Your task to perform on an android device: Open maps Image 0: 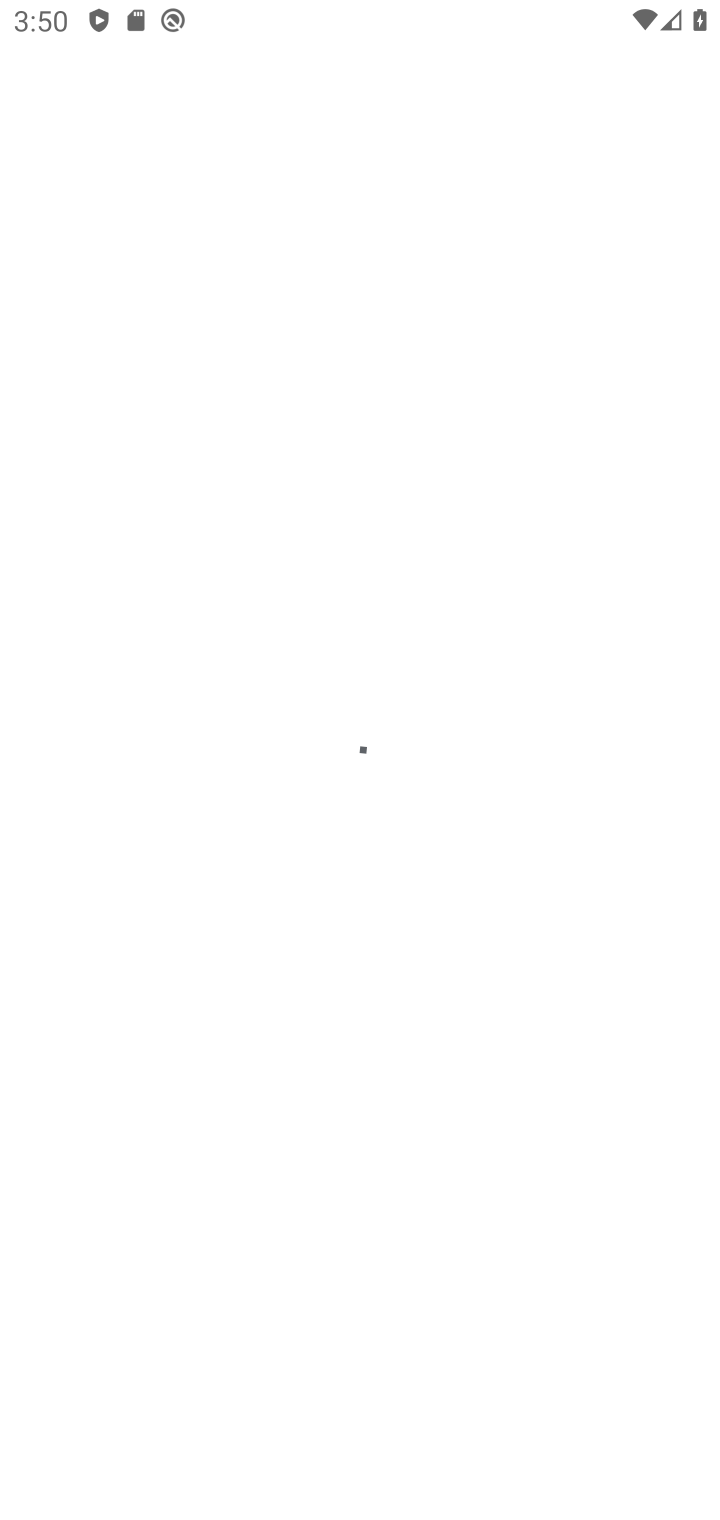
Step 0: press back button
Your task to perform on an android device: Open maps Image 1: 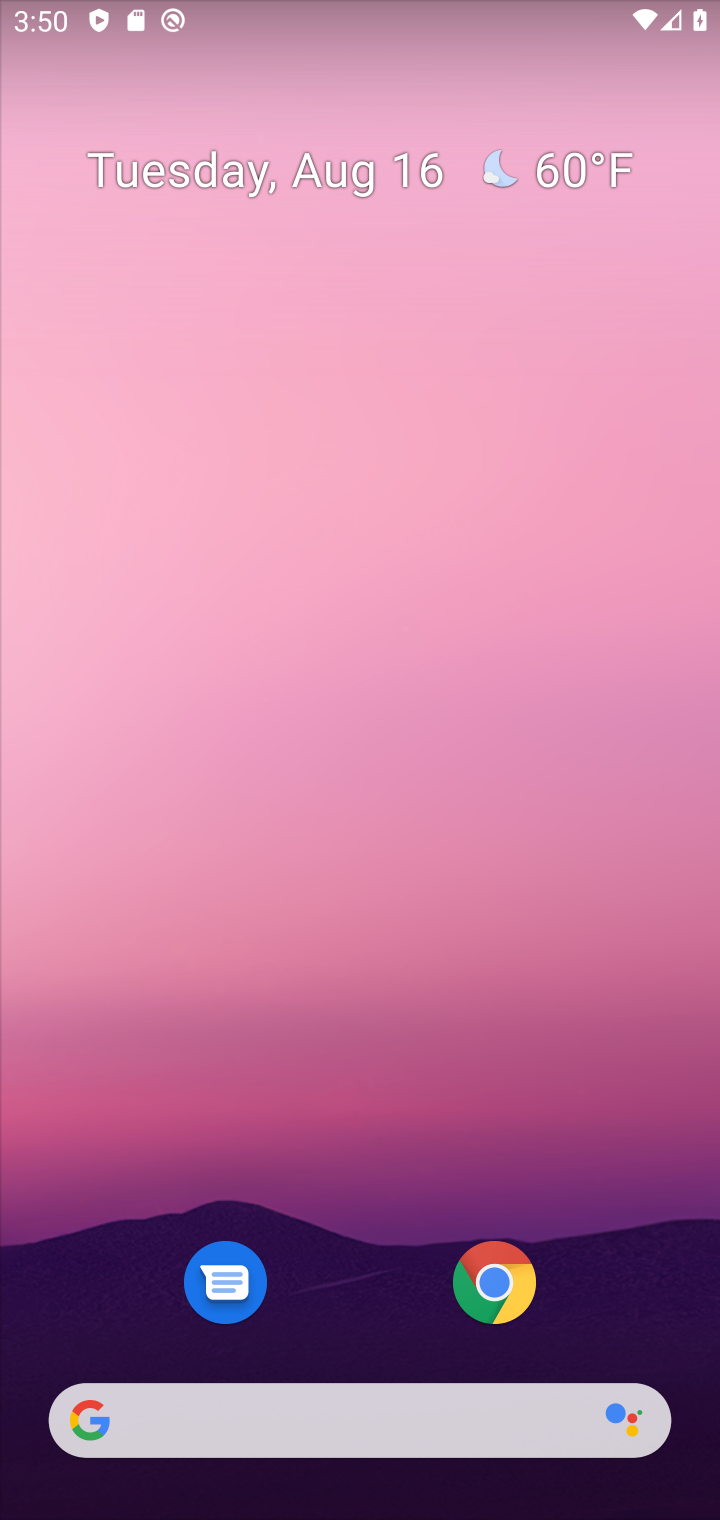
Step 1: drag from (294, 1335) to (553, 206)
Your task to perform on an android device: Open maps Image 2: 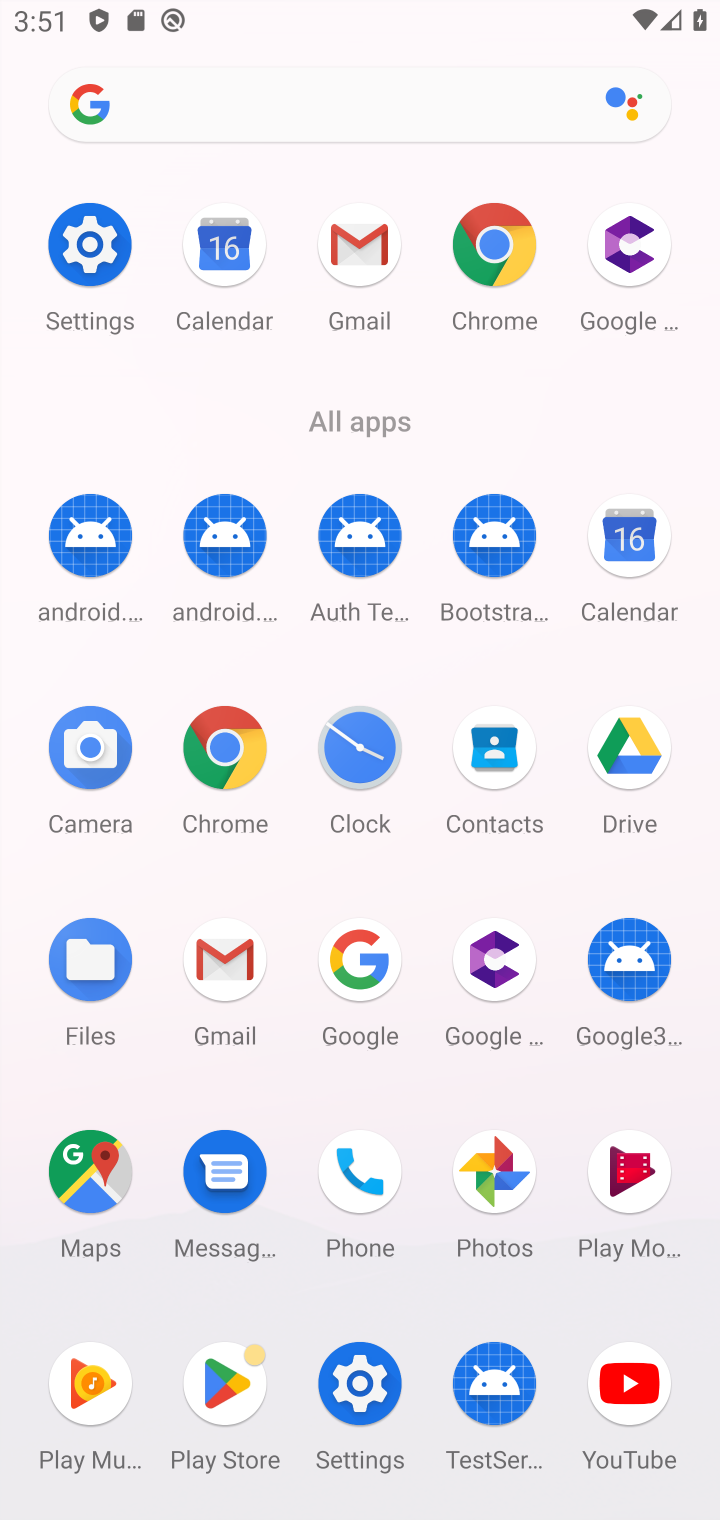
Step 2: click (85, 1157)
Your task to perform on an android device: Open maps Image 3: 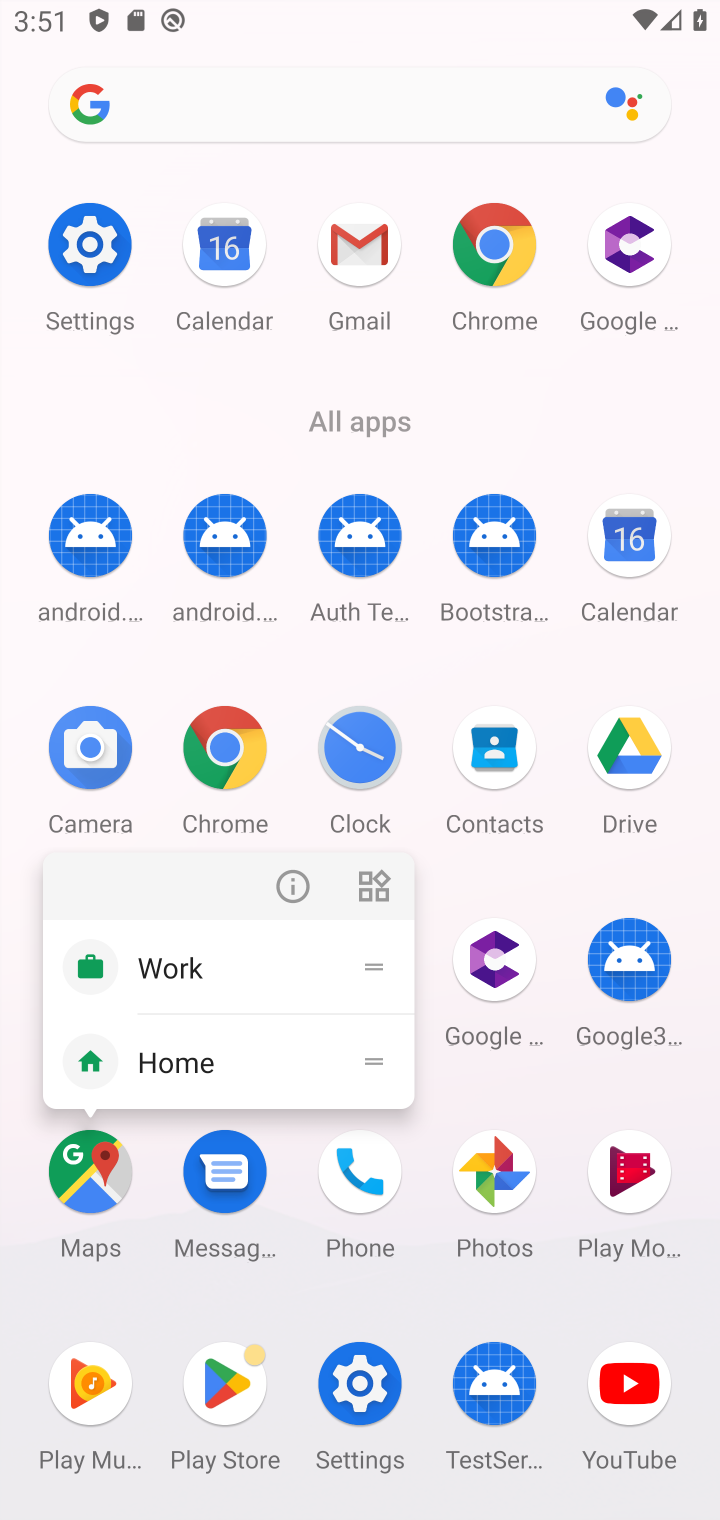
Step 3: click (81, 1165)
Your task to perform on an android device: Open maps Image 4: 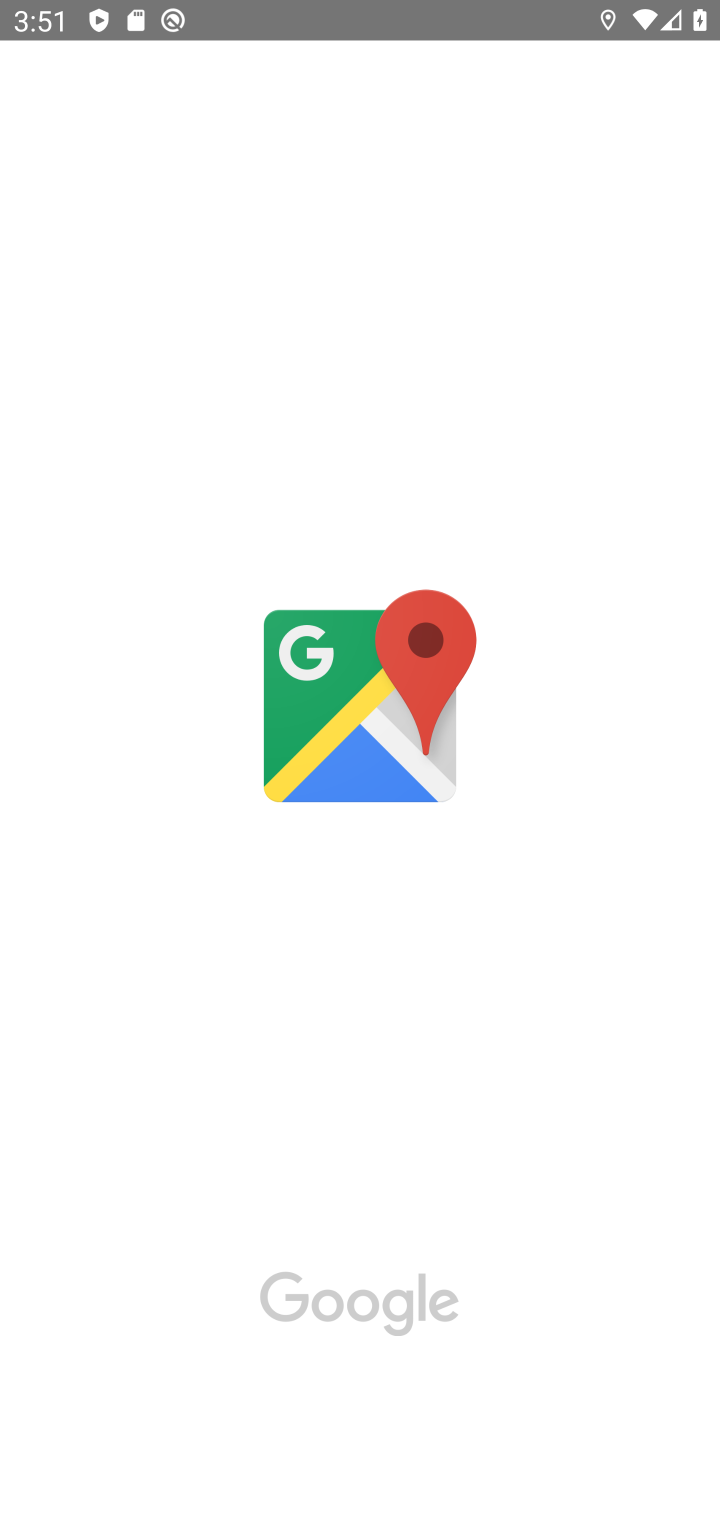
Step 4: click (478, 742)
Your task to perform on an android device: Open maps Image 5: 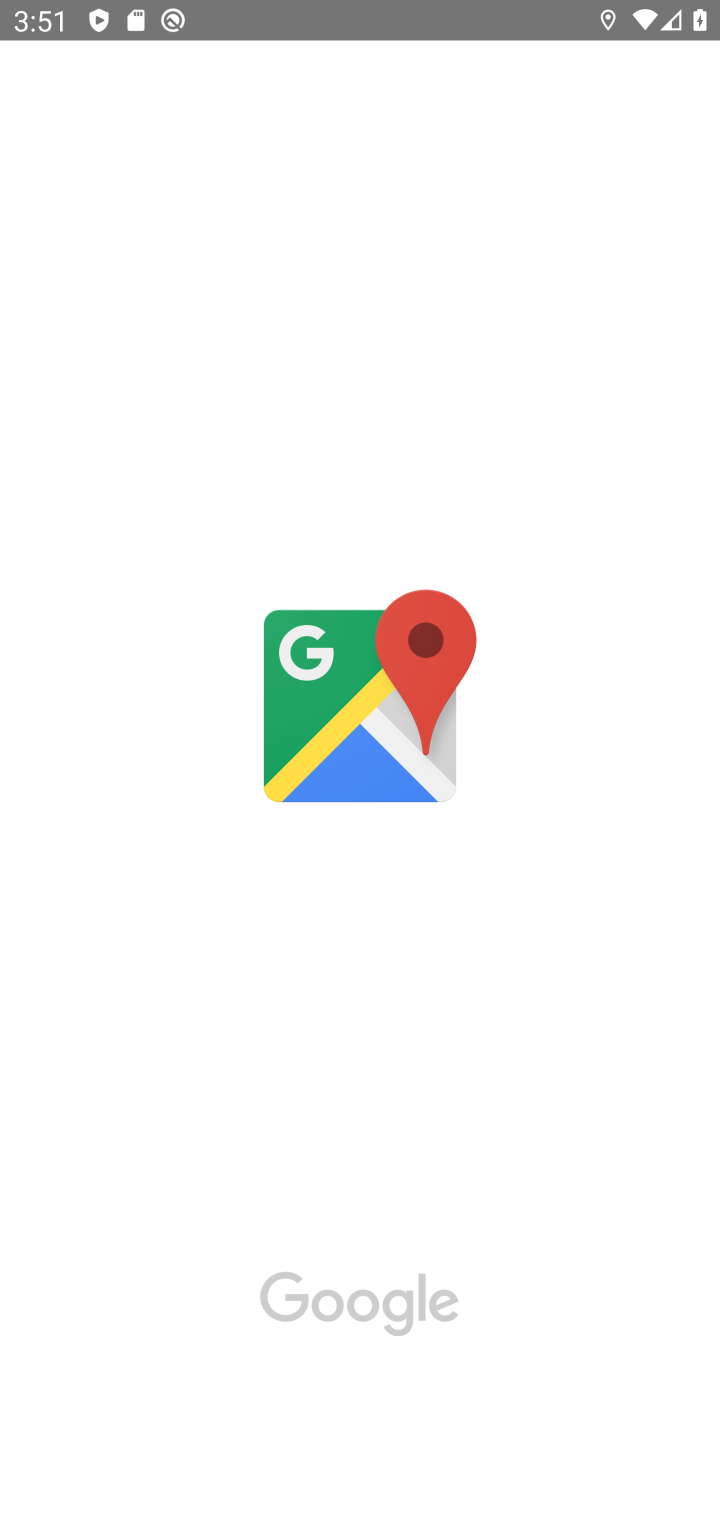
Step 5: task complete